Your task to perform on an android device: toggle location history Image 0: 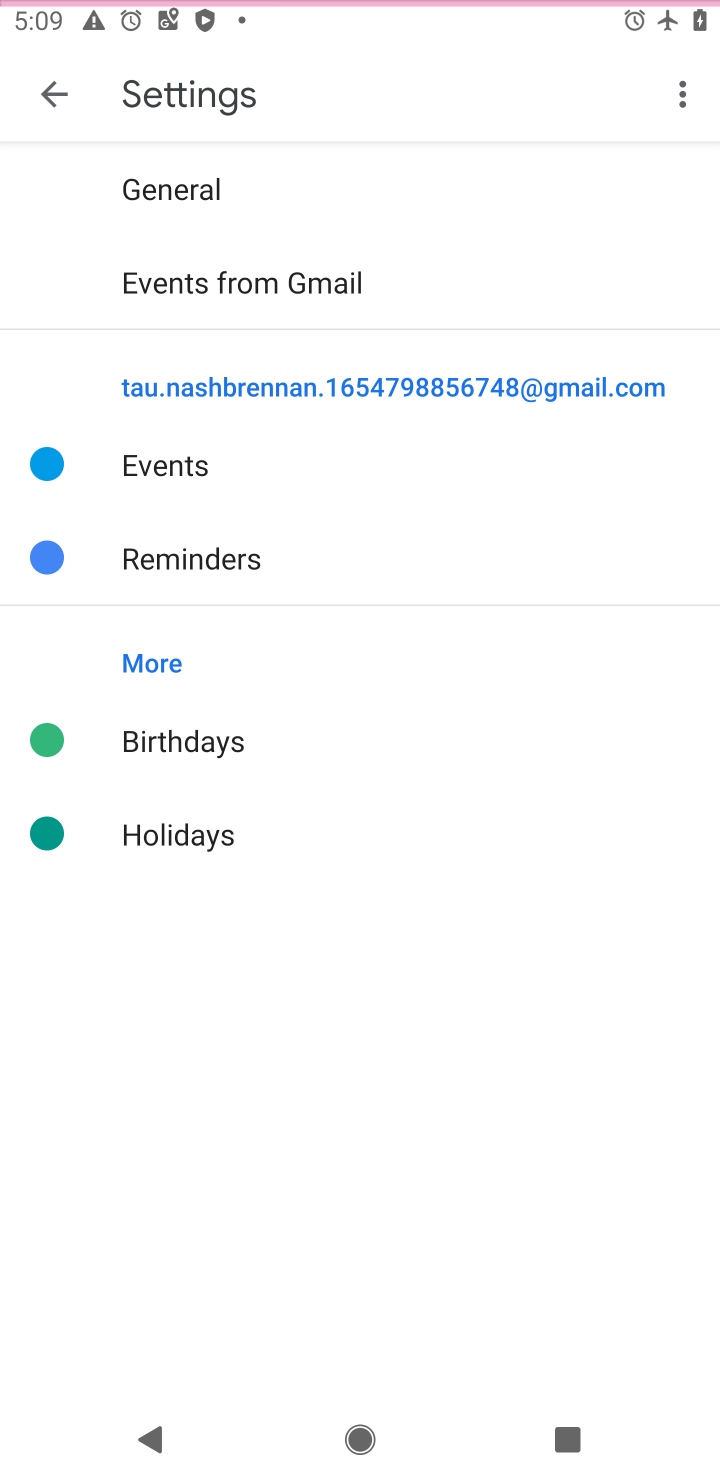
Step 0: press home button
Your task to perform on an android device: toggle location history Image 1: 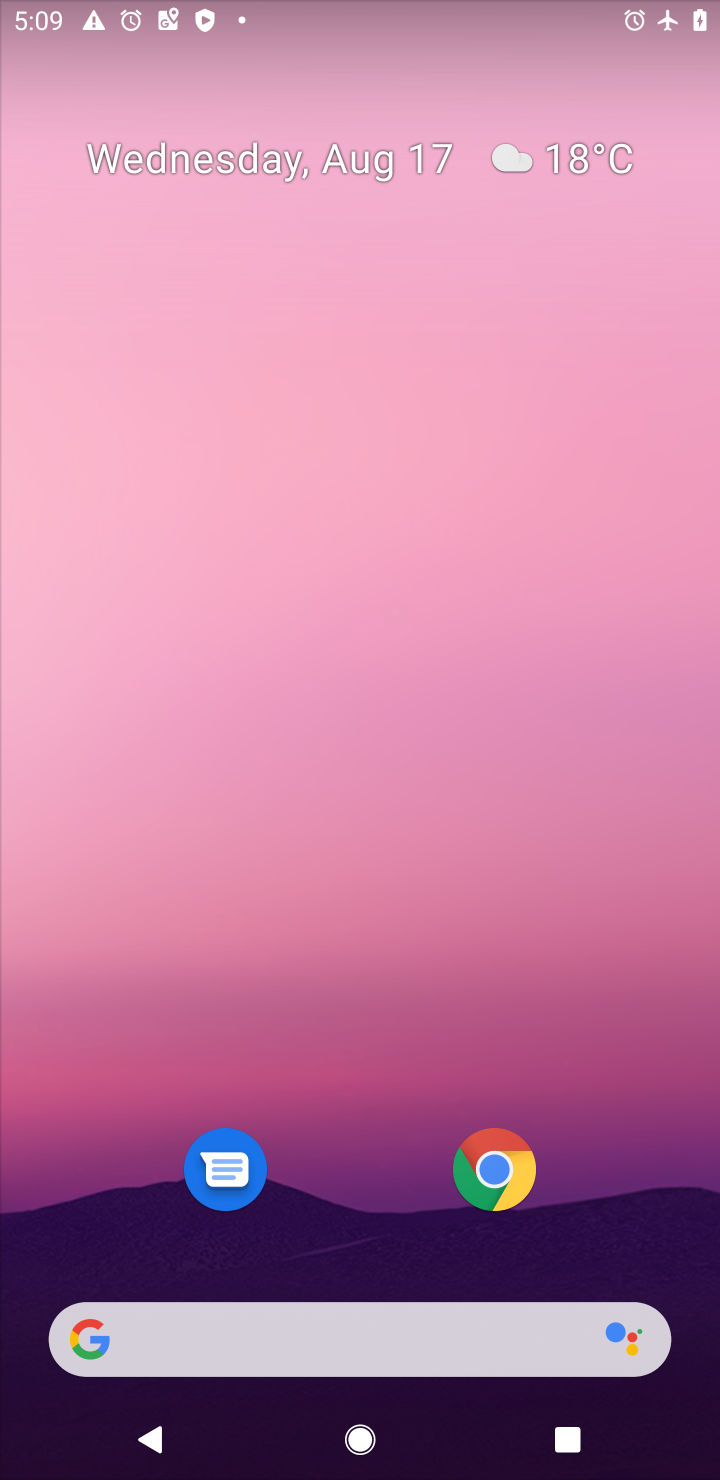
Step 1: drag from (372, 1150) to (306, 89)
Your task to perform on an android device: toggle location history Image 2: 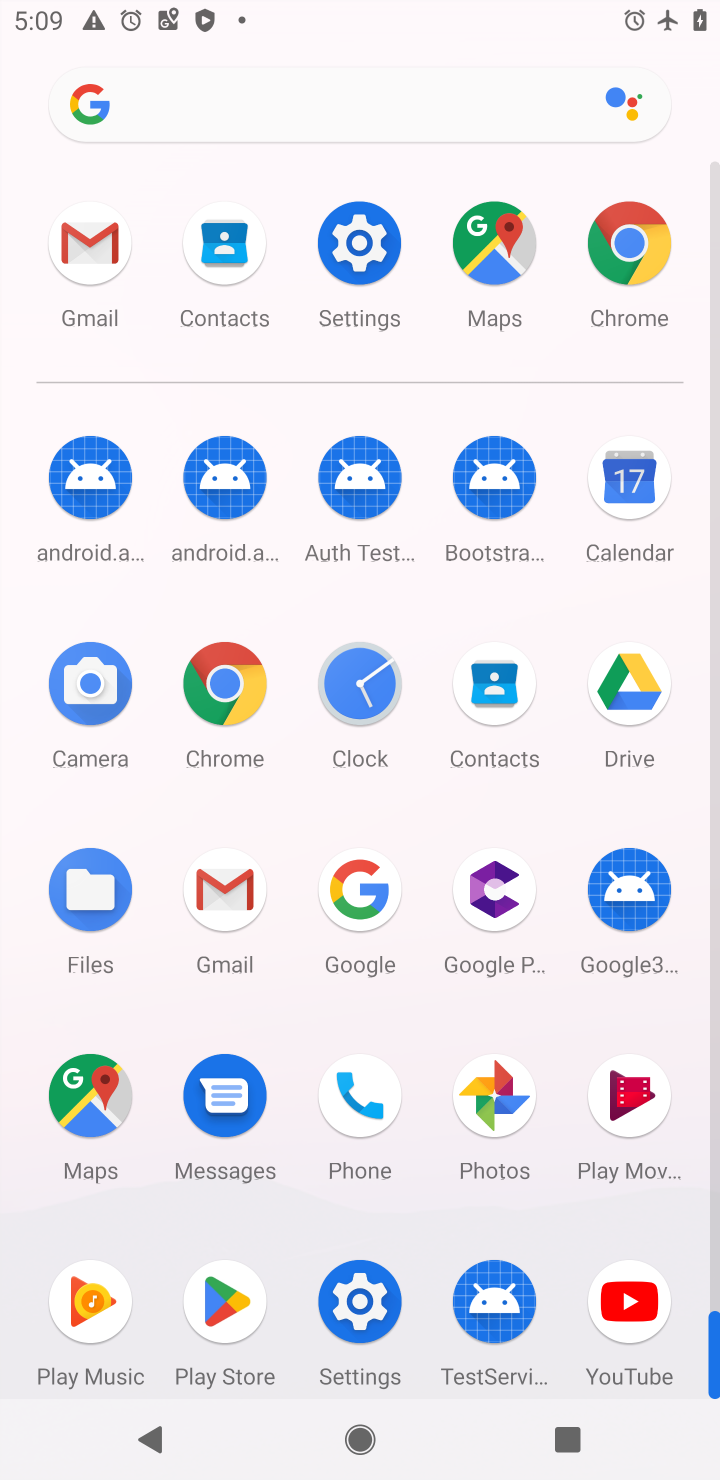
Step 2: click (376, 1312)
Your task to perform on an android device: toggle location history Image 3: 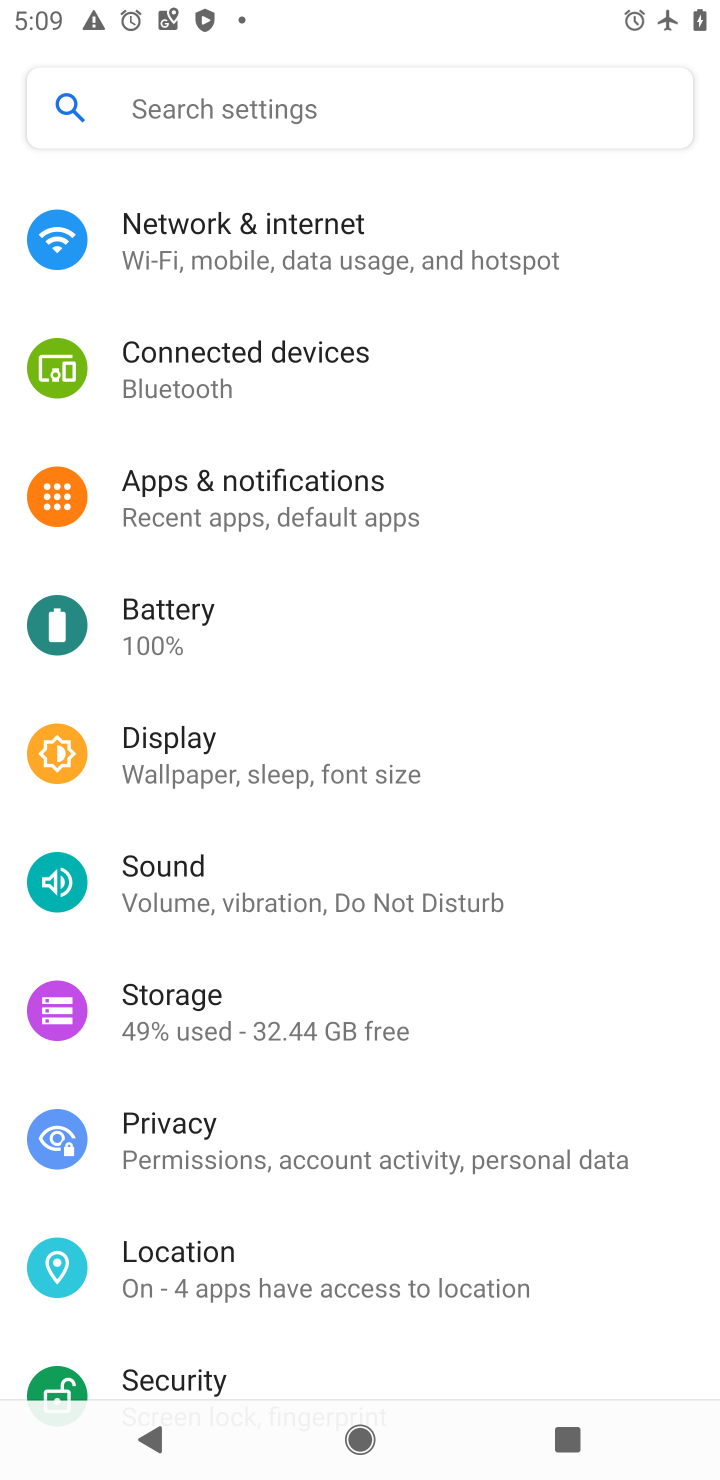
Step 3: click (232, 1263)
Your task to perform on an android device: toggle location history Image 4: 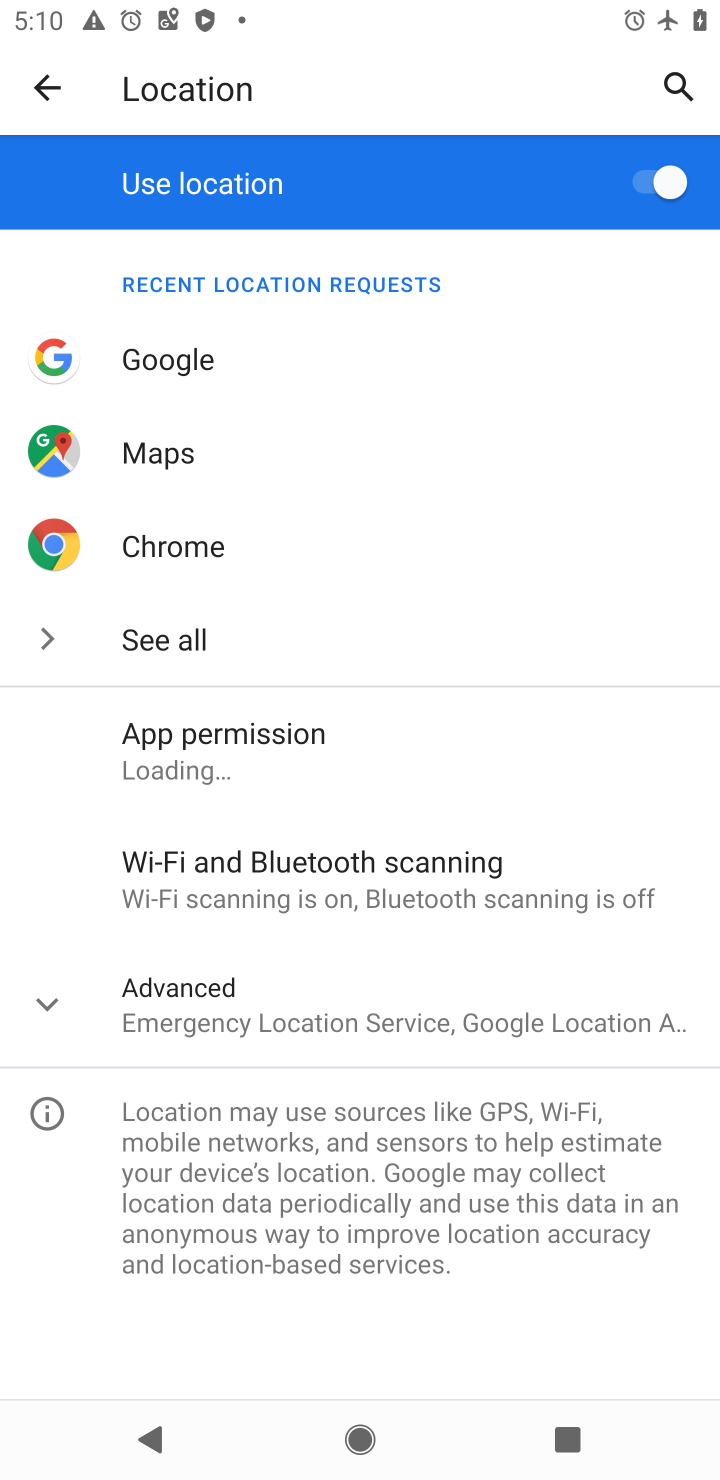
Step 4: press home button
Your task to perform on an android device: toggle location history Image 5: 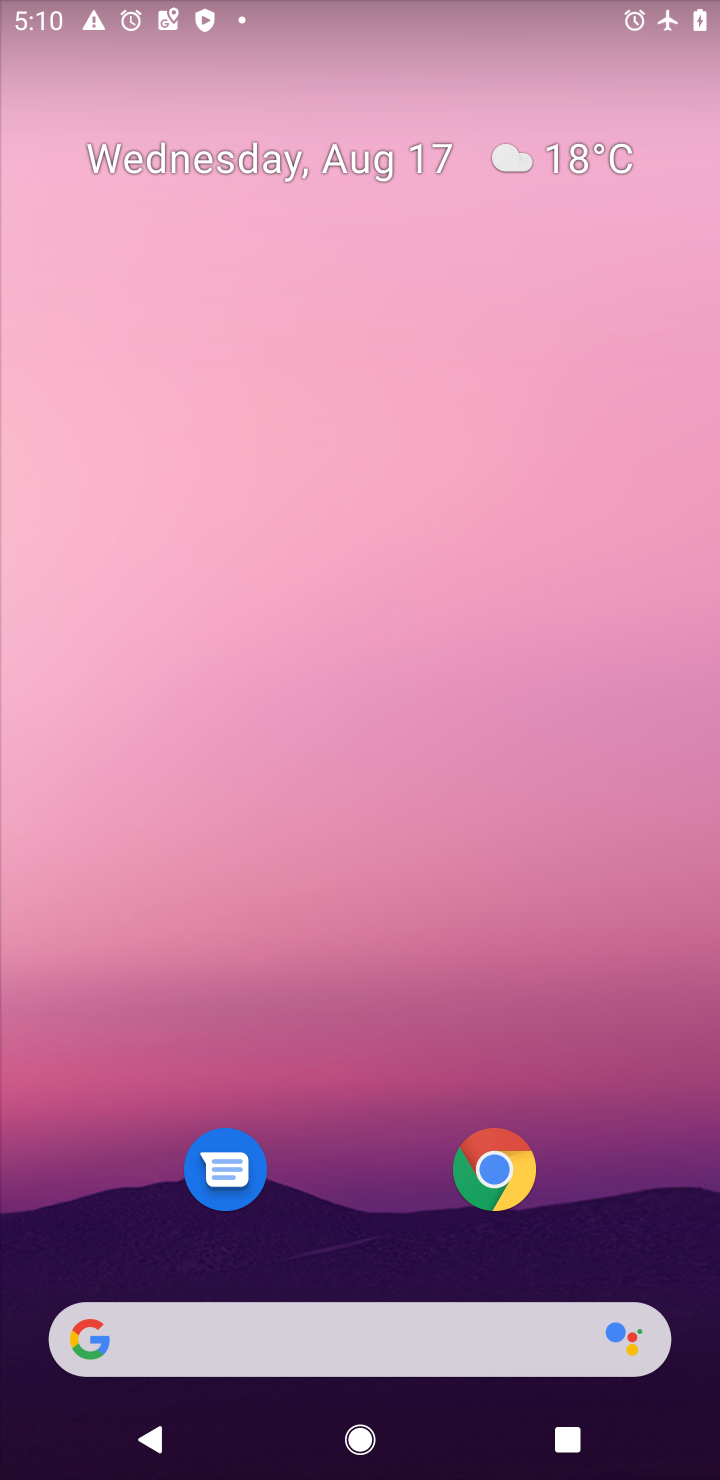
Step 5: drag from (376, 737) to (373, 68)
Your task to perform on an android device: toggle location history Image 6: 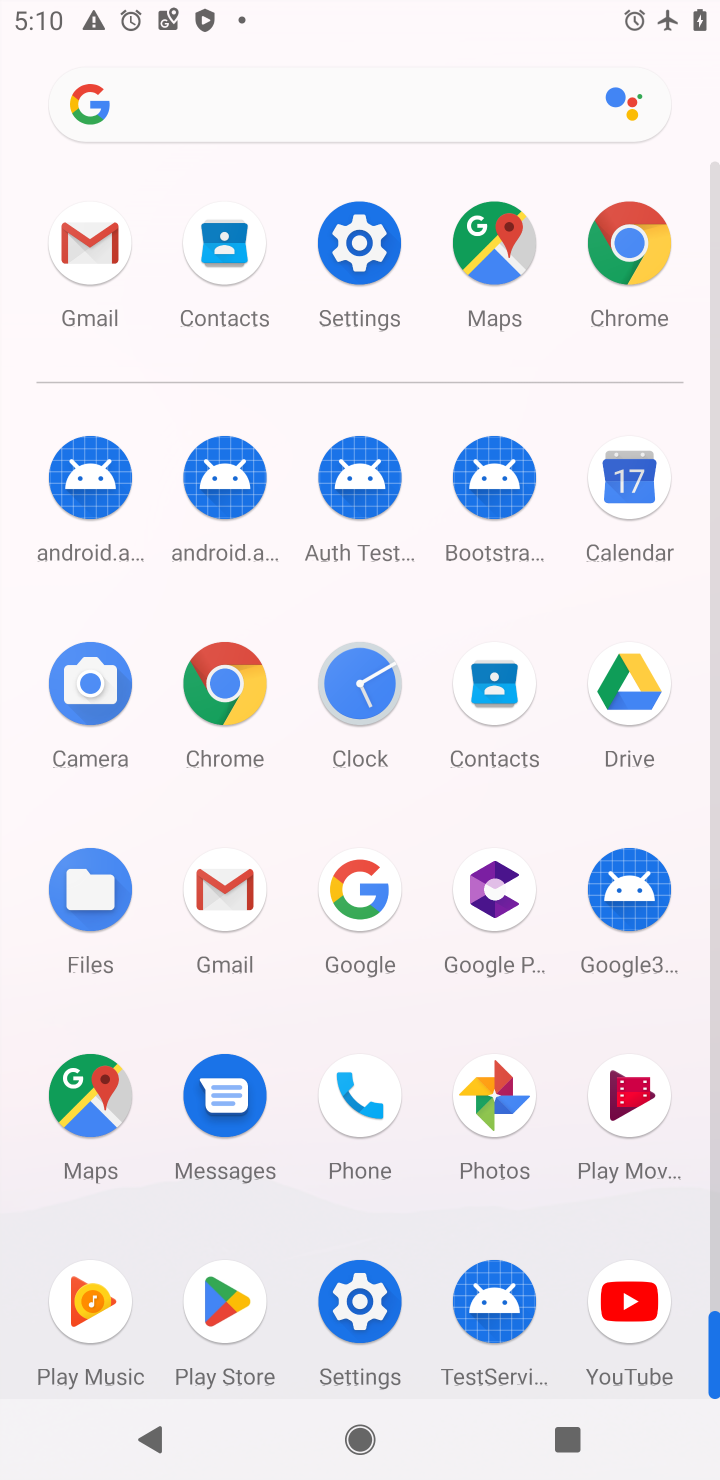
Step 6: click (89, 1086)
Your task to perform on an android device: toggle location history Image 7: 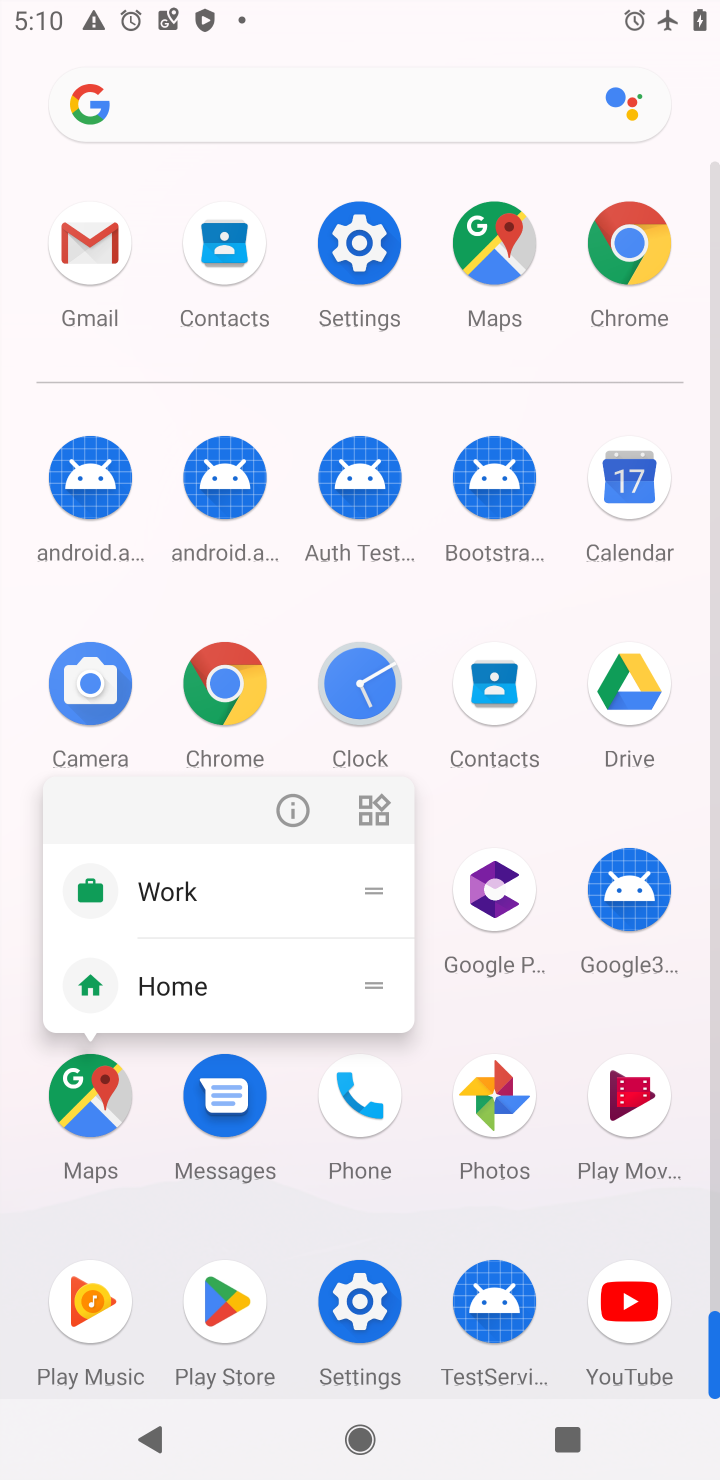
Step 7: click (77, 1090)
Your task to perform on an android device: toggle location history Image 8: 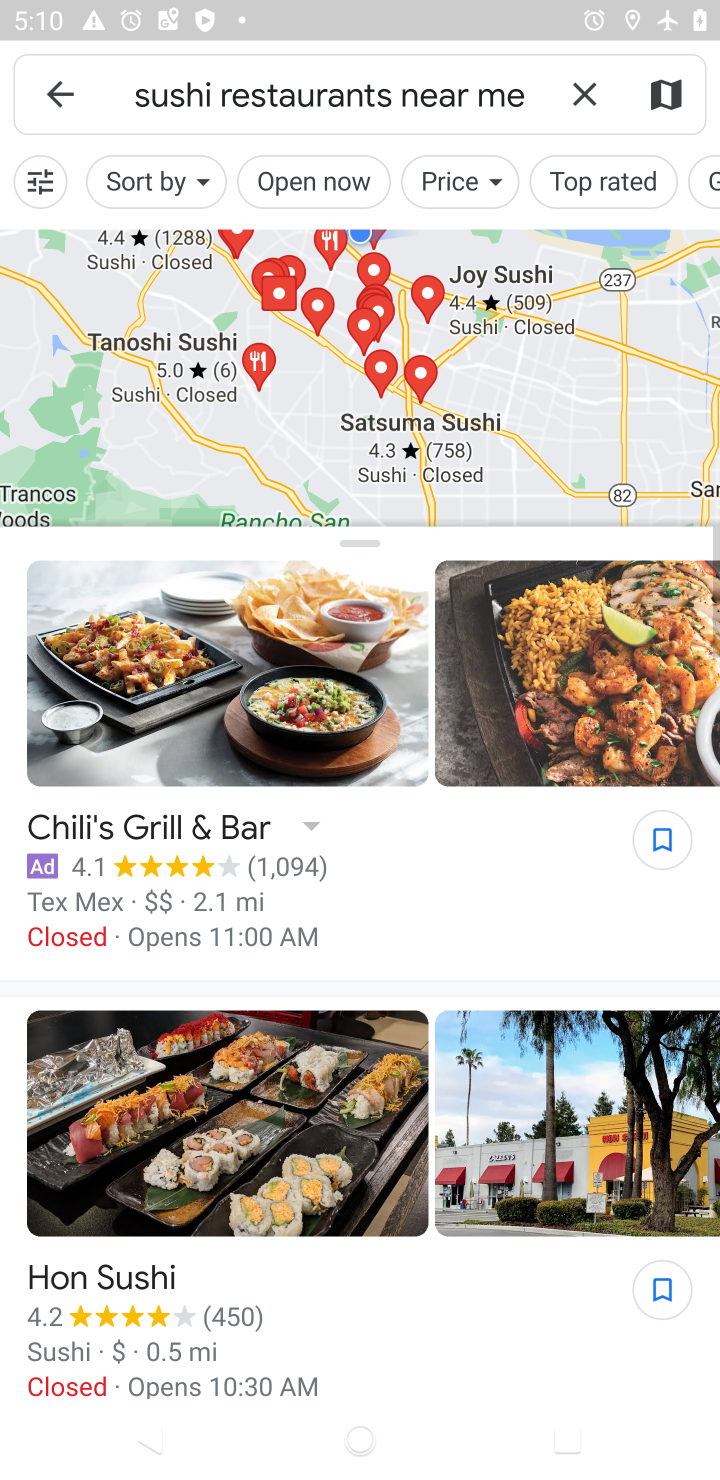
Step 8: click (46, 88)
Your task to perform on an android device: toggle location history Image 9: 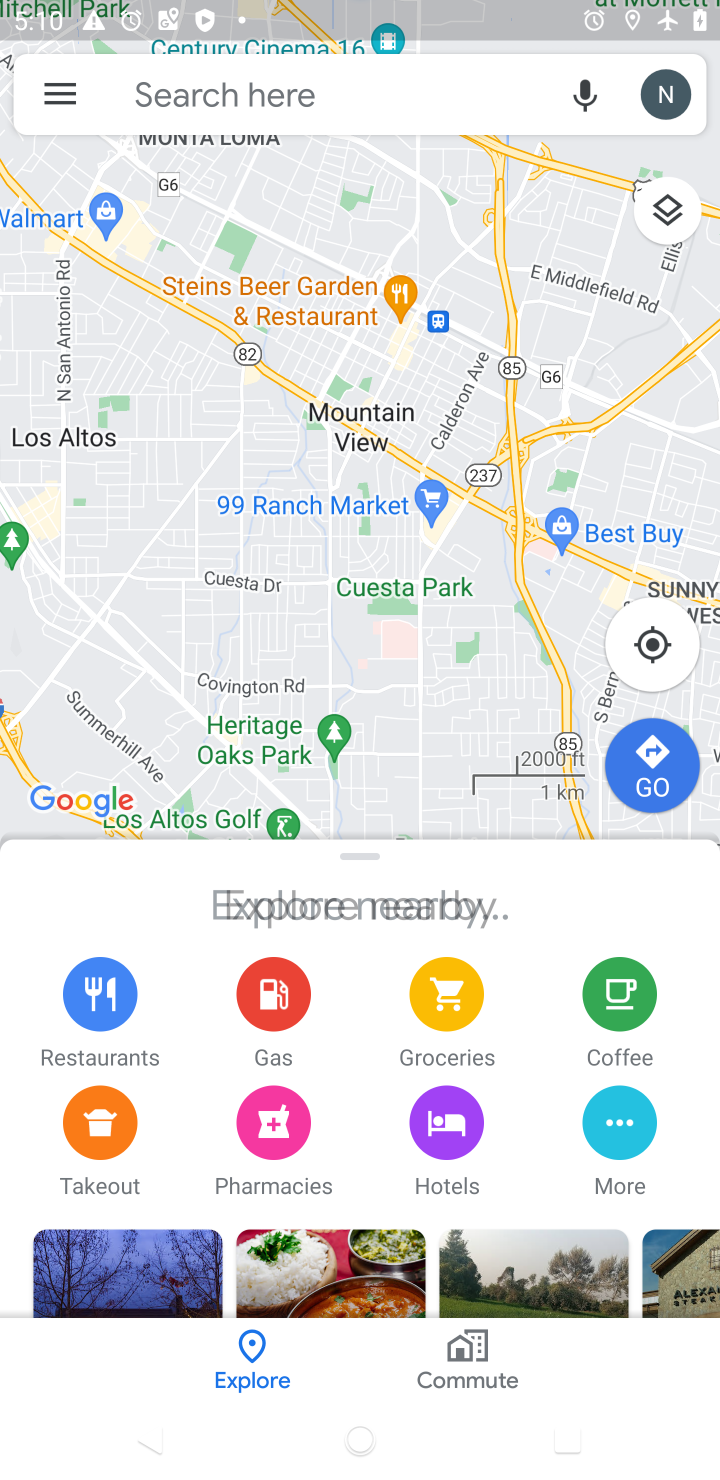
Step 9: click (73, 80)
Your task to perform on an android device: toggle location history Image 10: 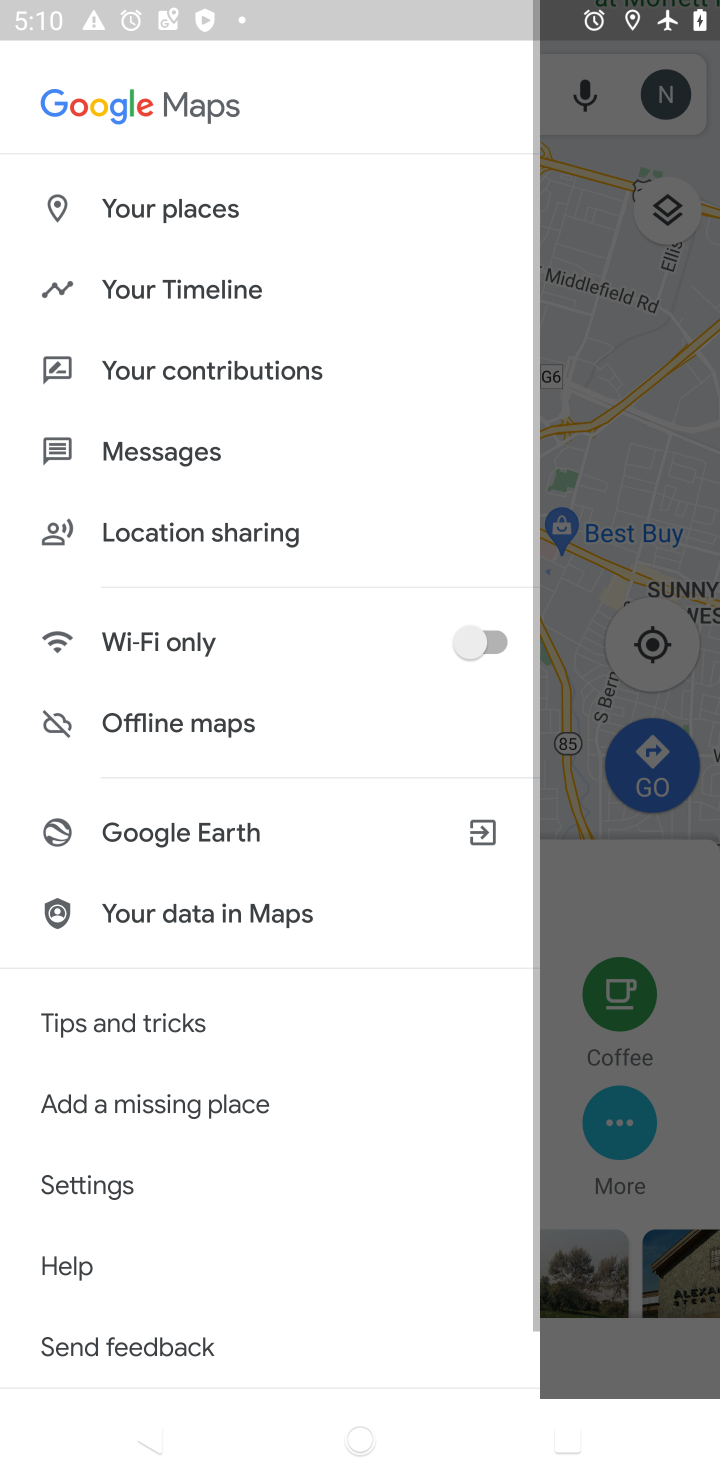
Step 10: click (224, 282)
Your task to perform on an android device: toggle location history Image 11: 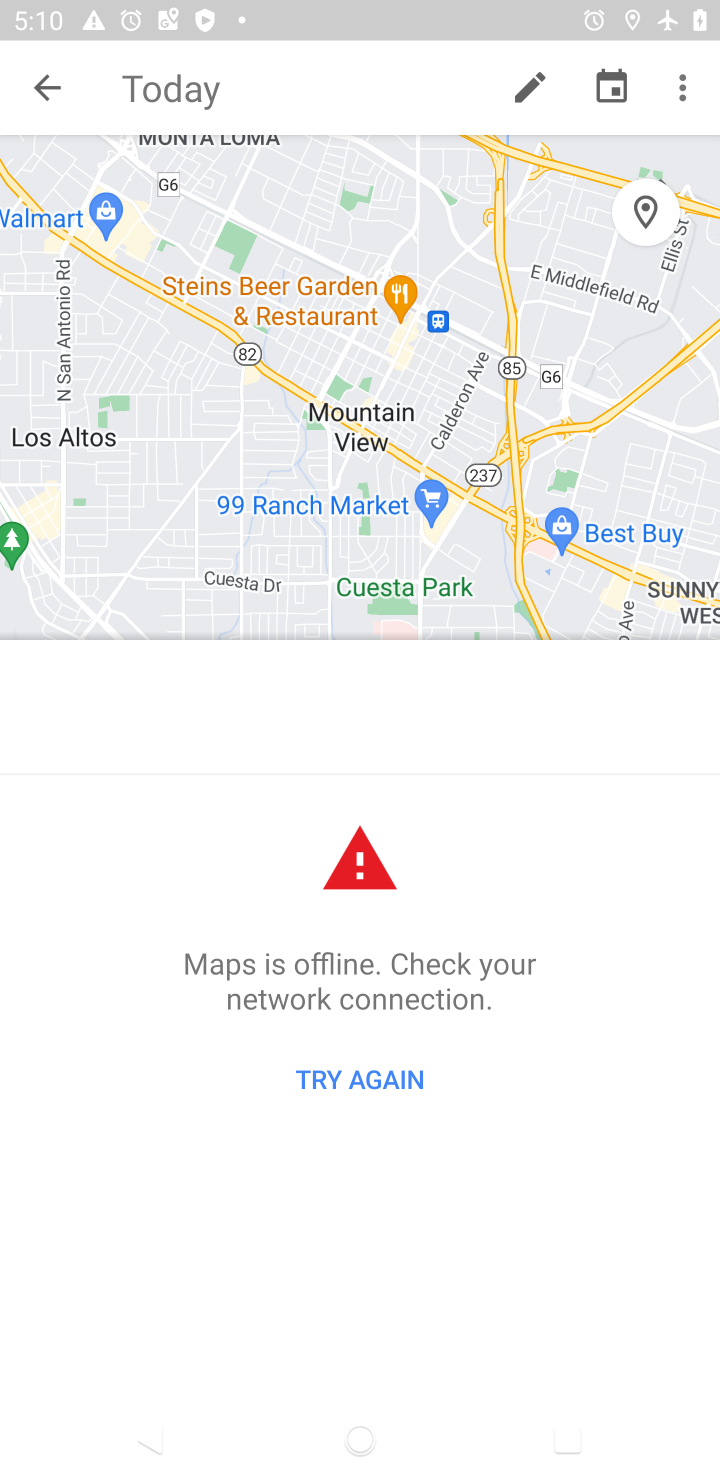
Step 11: drag from (483, 23) to (367, 1114)
Your task to perform on an android device: toggle location history Image 12: 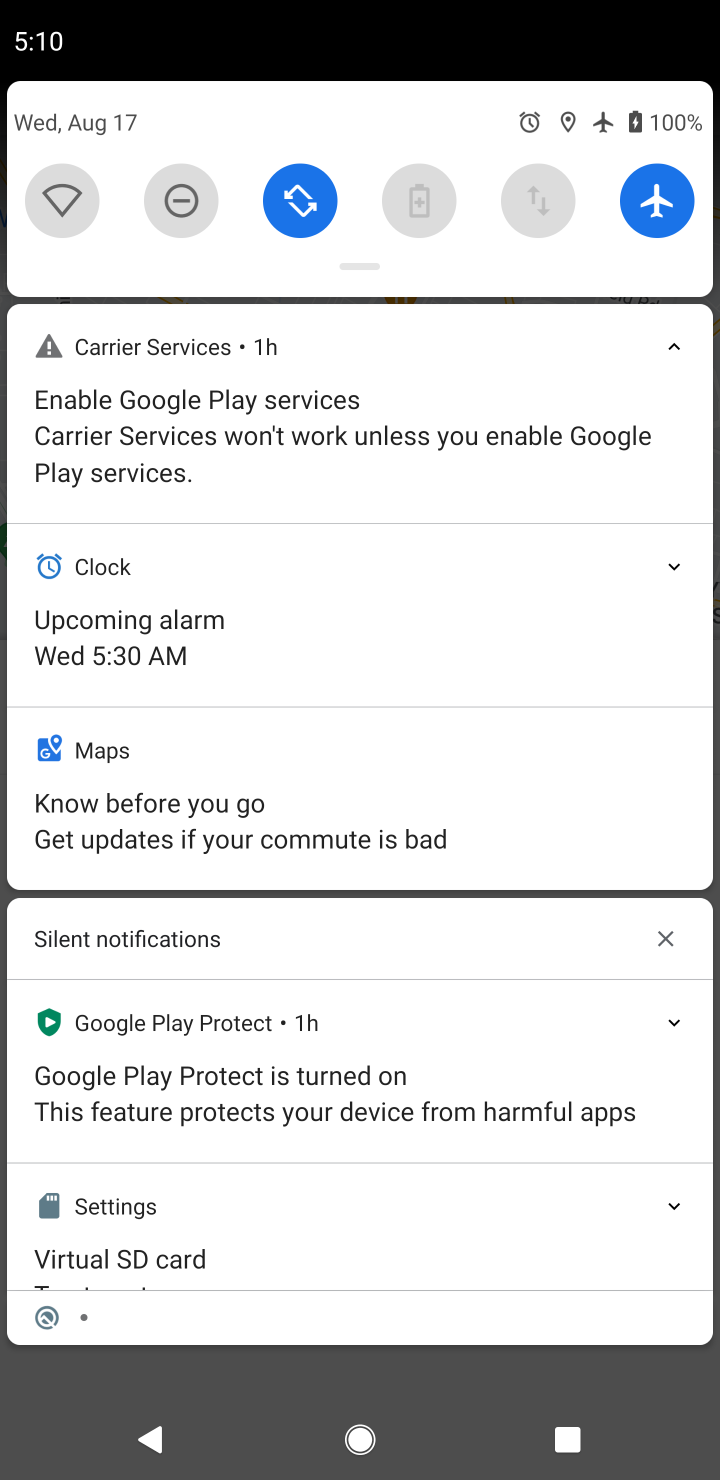
Step 12: click (666, 184)
Your task to perform on an android device: toggle location history Image 13: 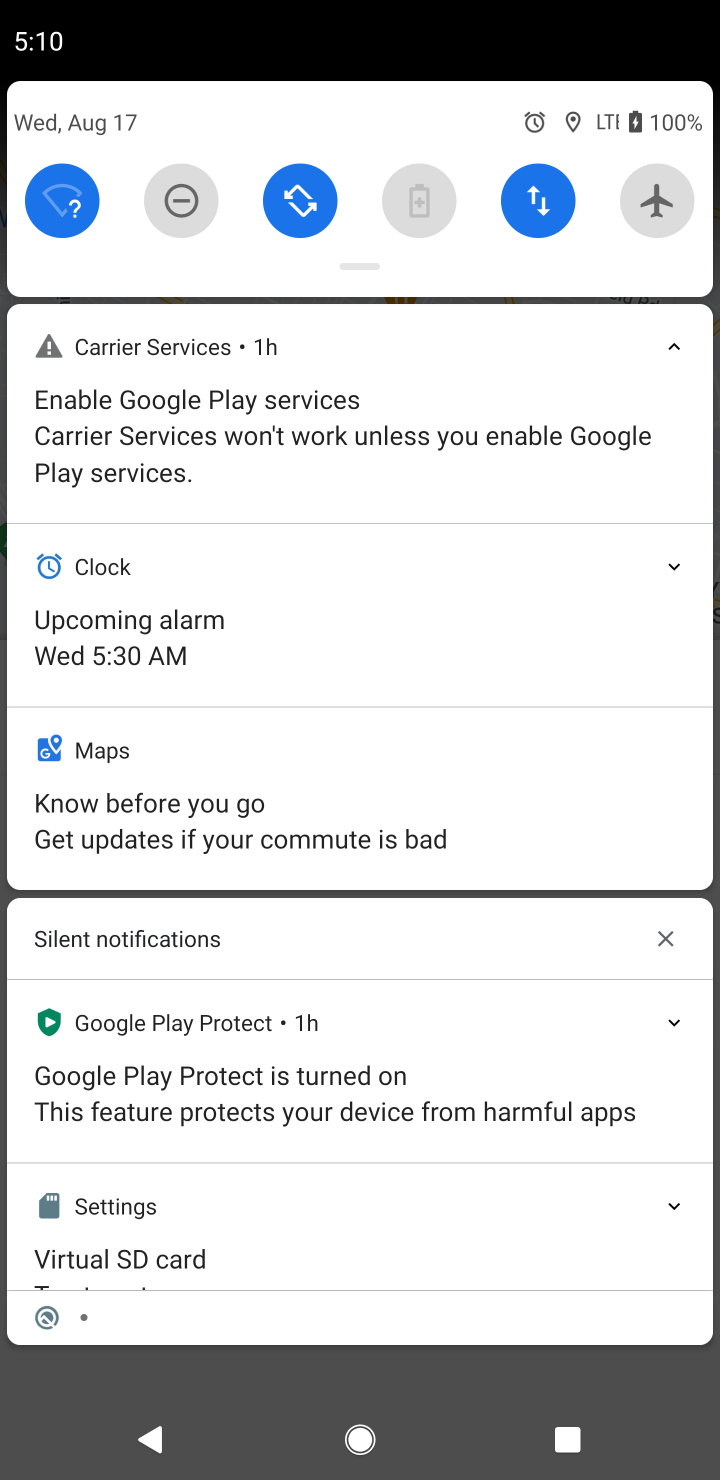
Step 13: click (667, 1376)
Your task to perform on an android device: toggle location history Image 14: 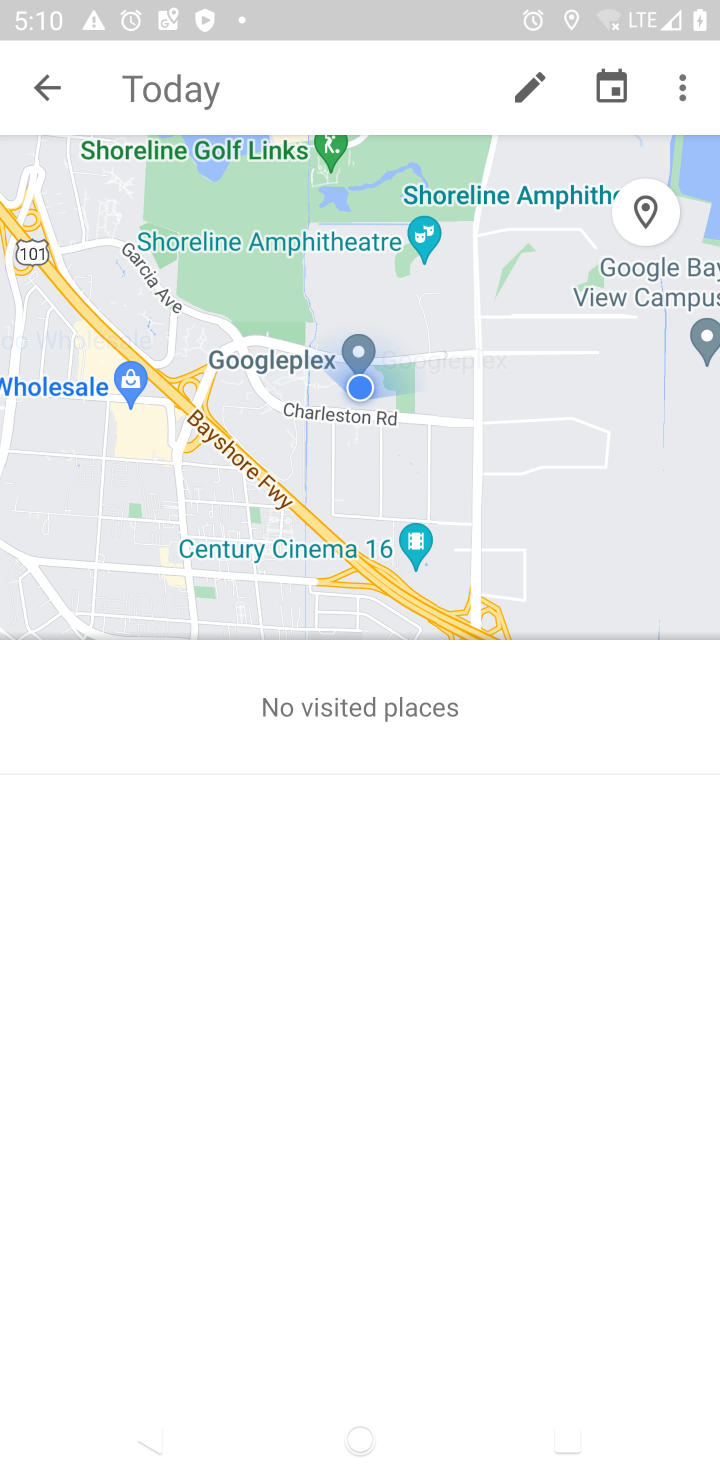
Step 14: click (682, 72)
Your task to perform on an android device: toggle location history Image 15: 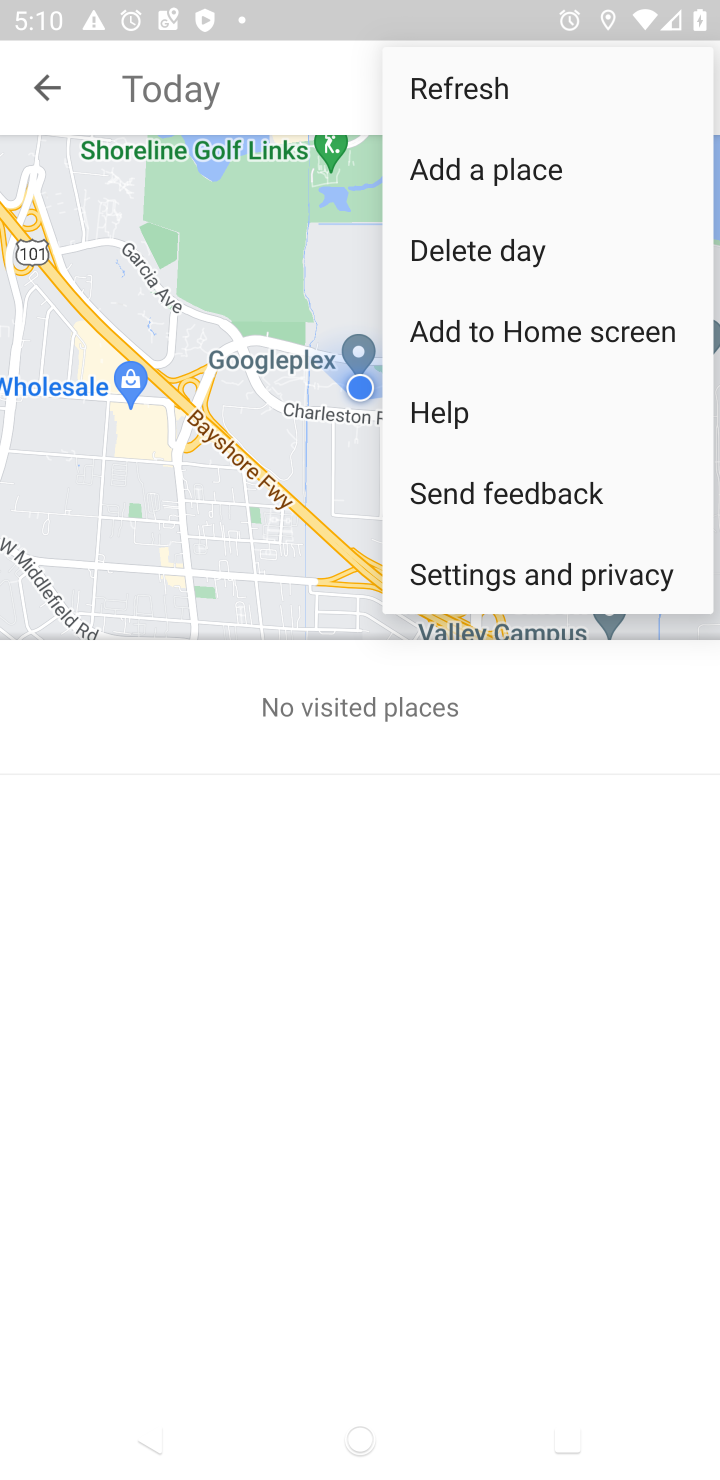
Step 15: click (516, 588)
Your task to perform on an android device: toggle location history Image 16: 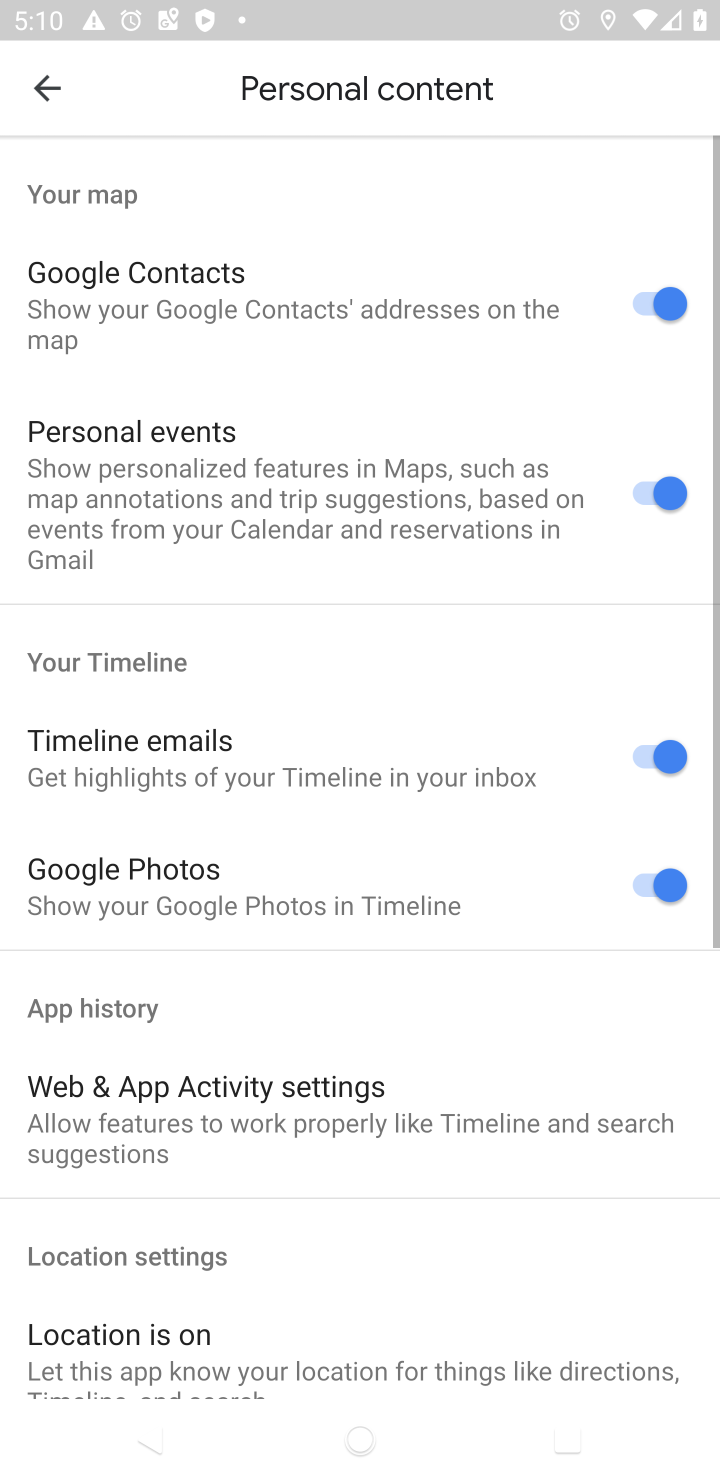
Step 16: drag from (467, 1082) to (490, 326)
Your task to perform on an android device: toggle location history Image 17: 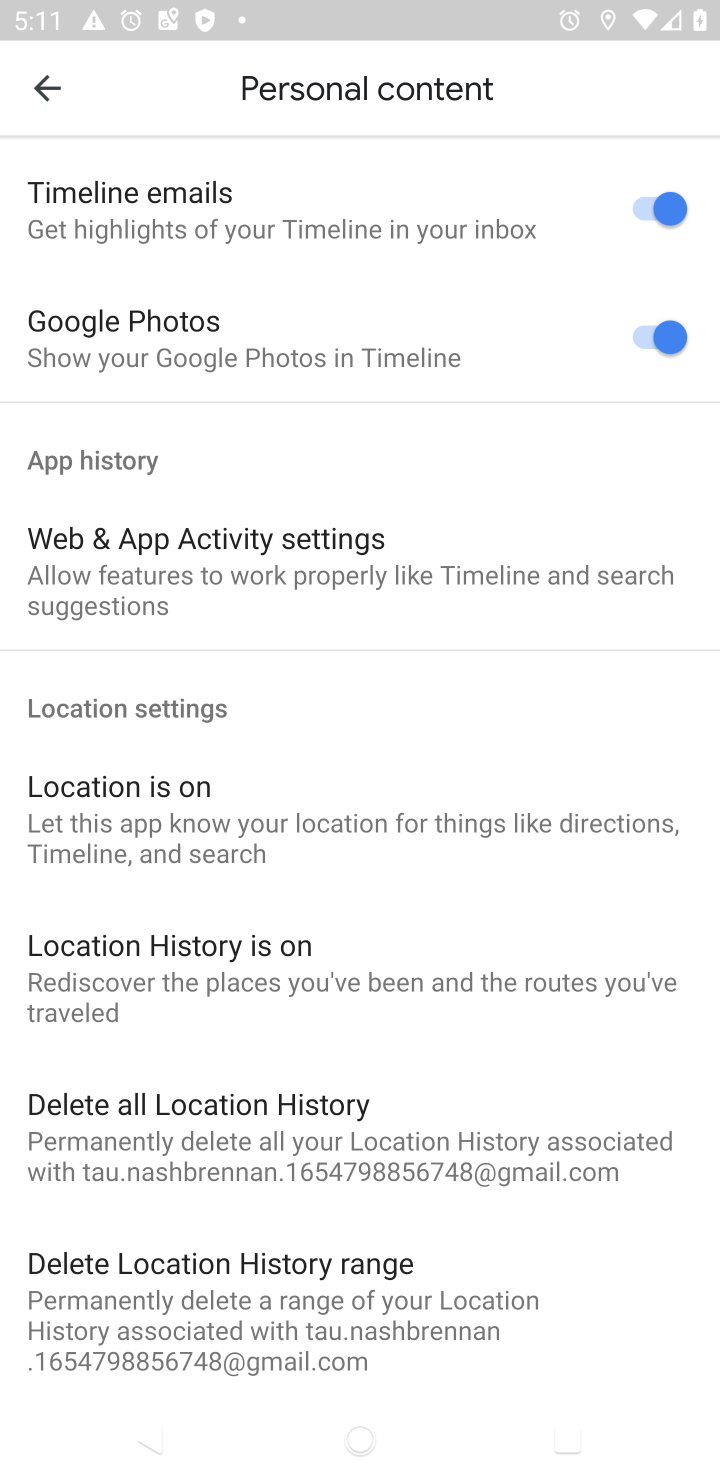
Step 17: click (120, 956)
Your task to perform on an android device: toggle location history Image 18: 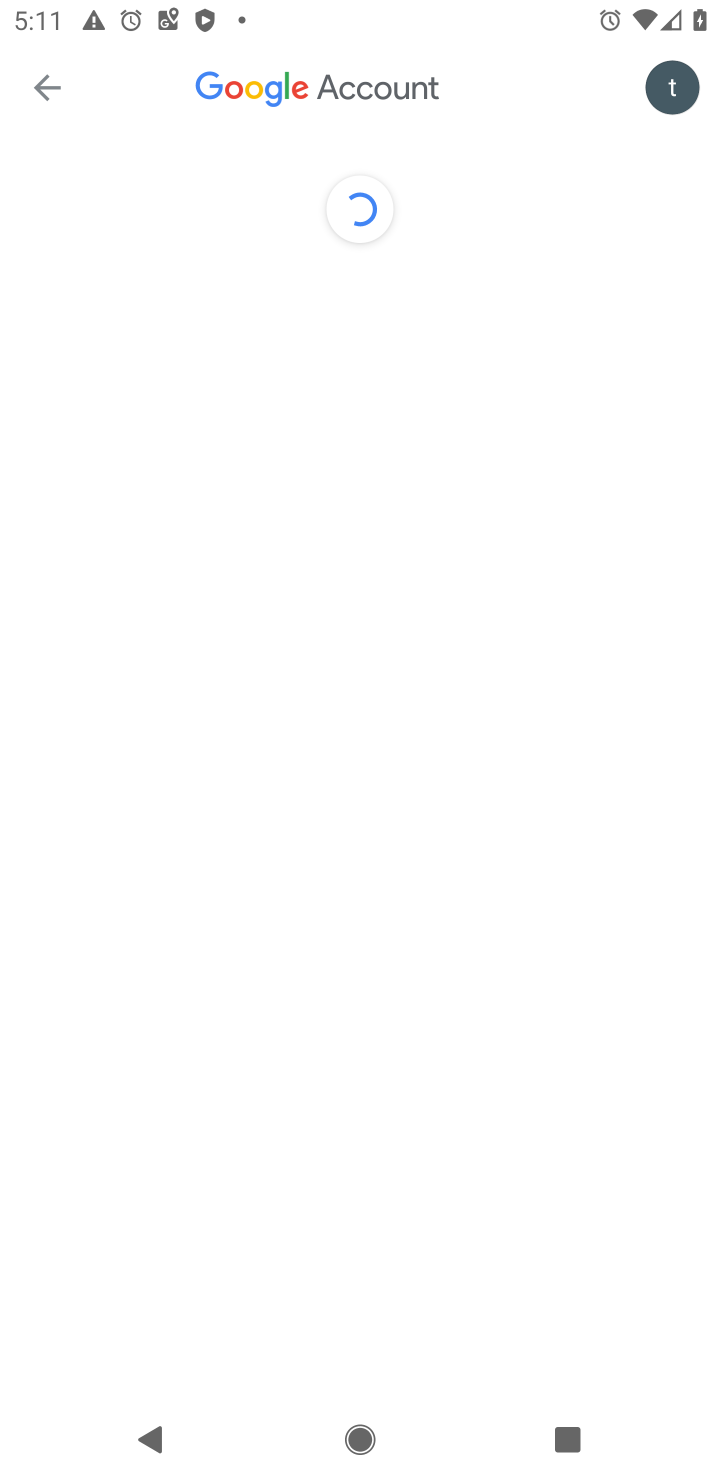
Step 18: click (570, 1248)
Your task to perform on an android device: toggle location history Image 19: 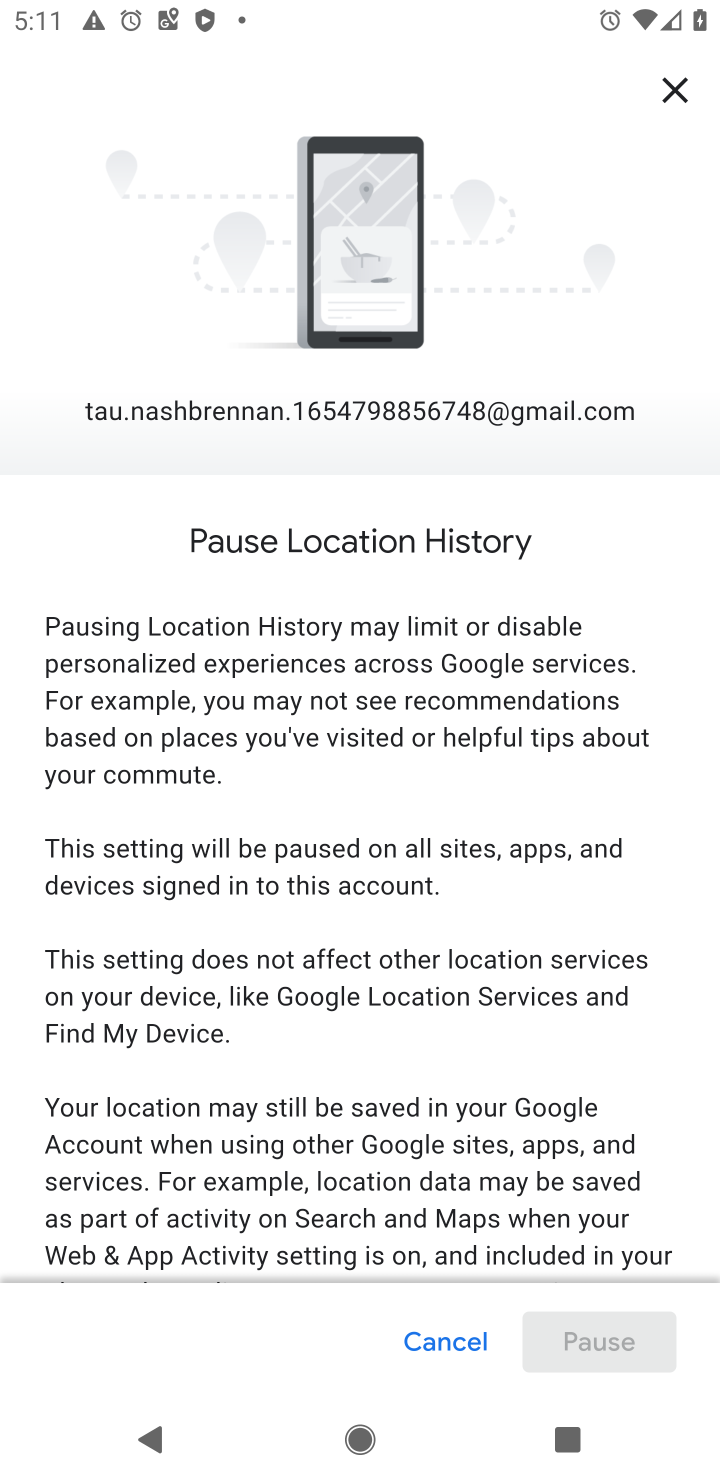
Step 19: drag from (433, 1177) to (432, 21)
Your task to perform on an android device: toggle location history Image 20: 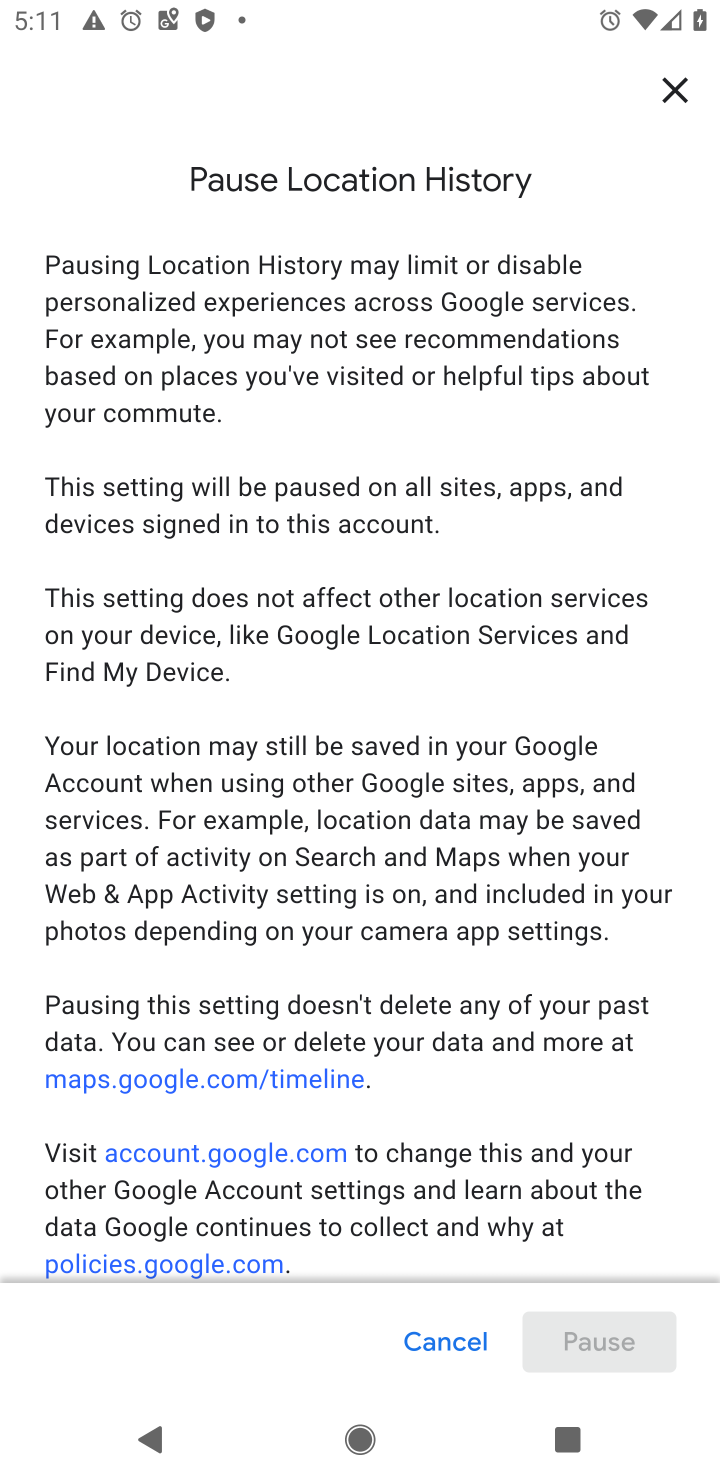
Step 20: drag from (462, 987) to (464, 249)
Your task to perform on an android device: toggle location history Image 21: 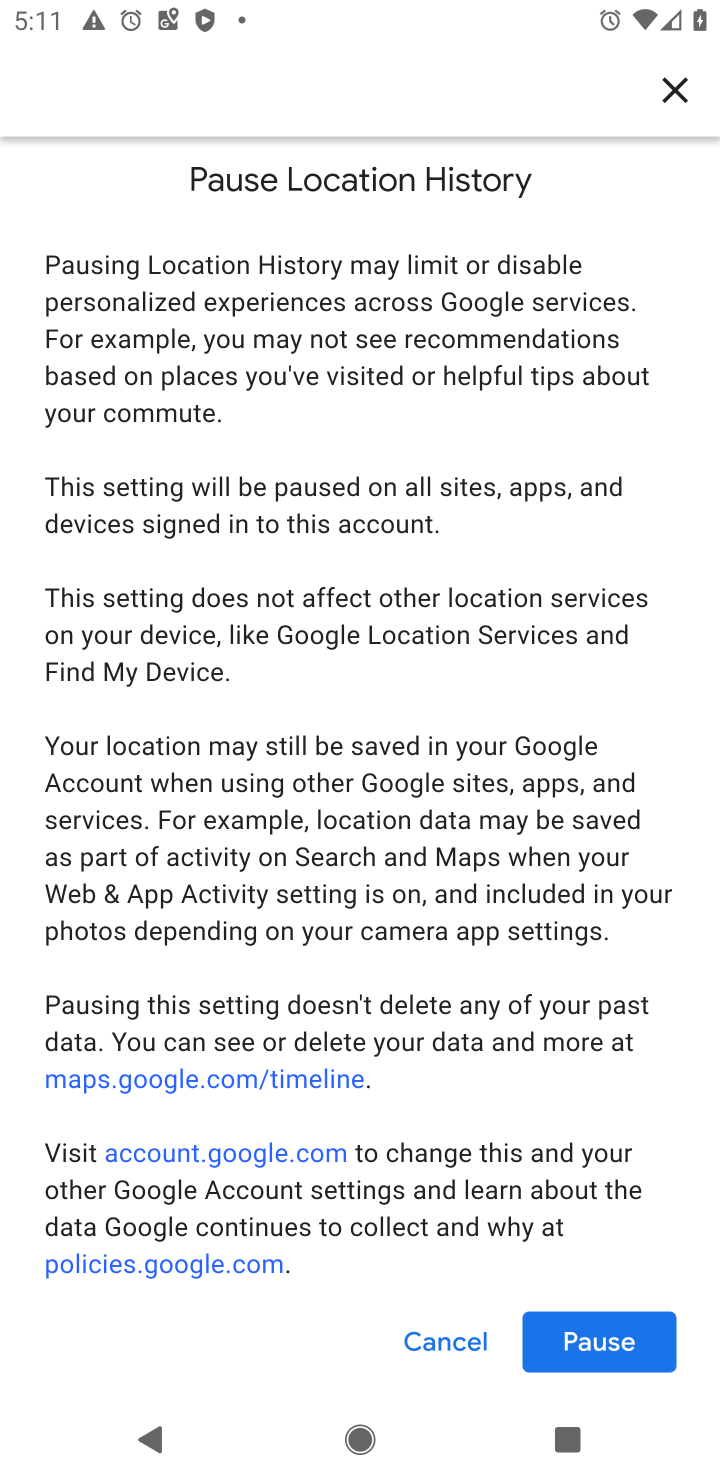
Step 21: click (597, 1331)
Your task to perform on an android device: toggle location history Image 22: 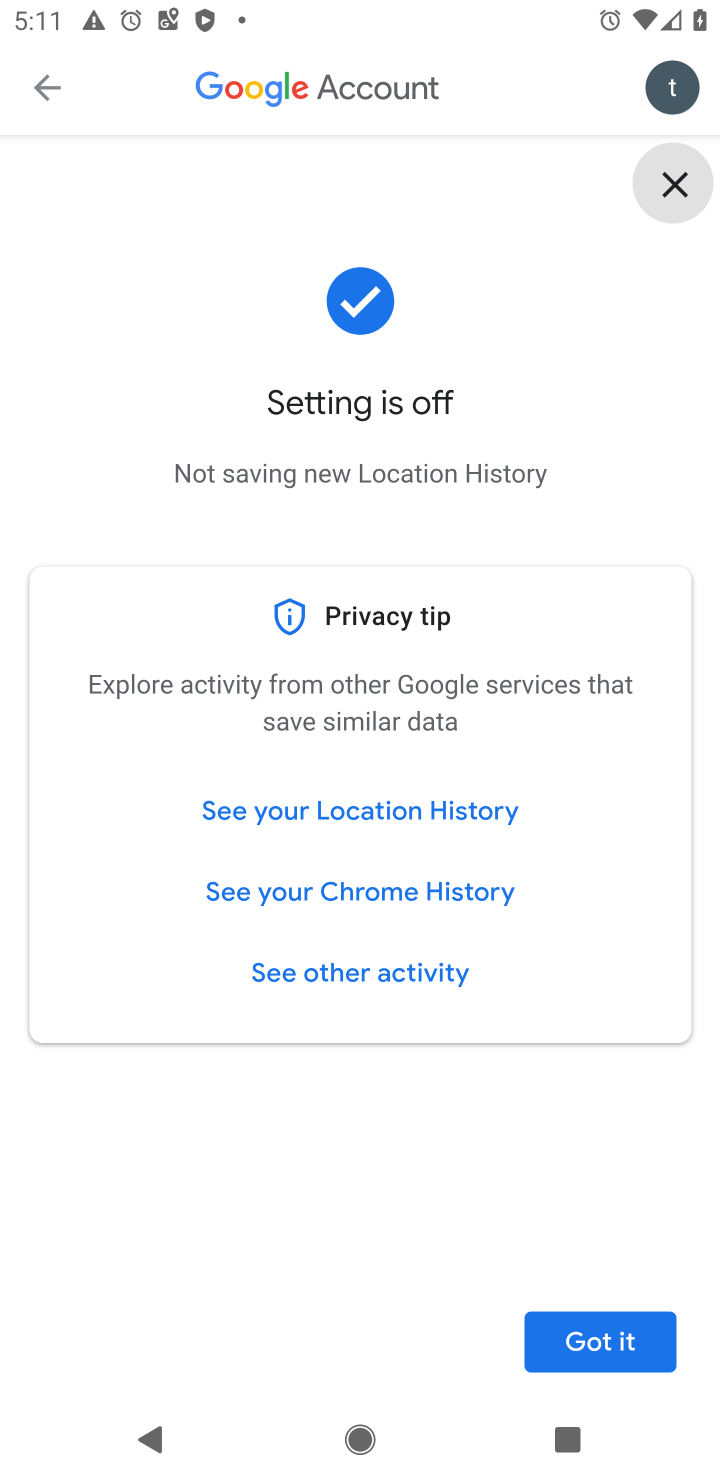
Step 22: click (610, 1336)
Your task to perform on an android device: toggle location history Image 23: 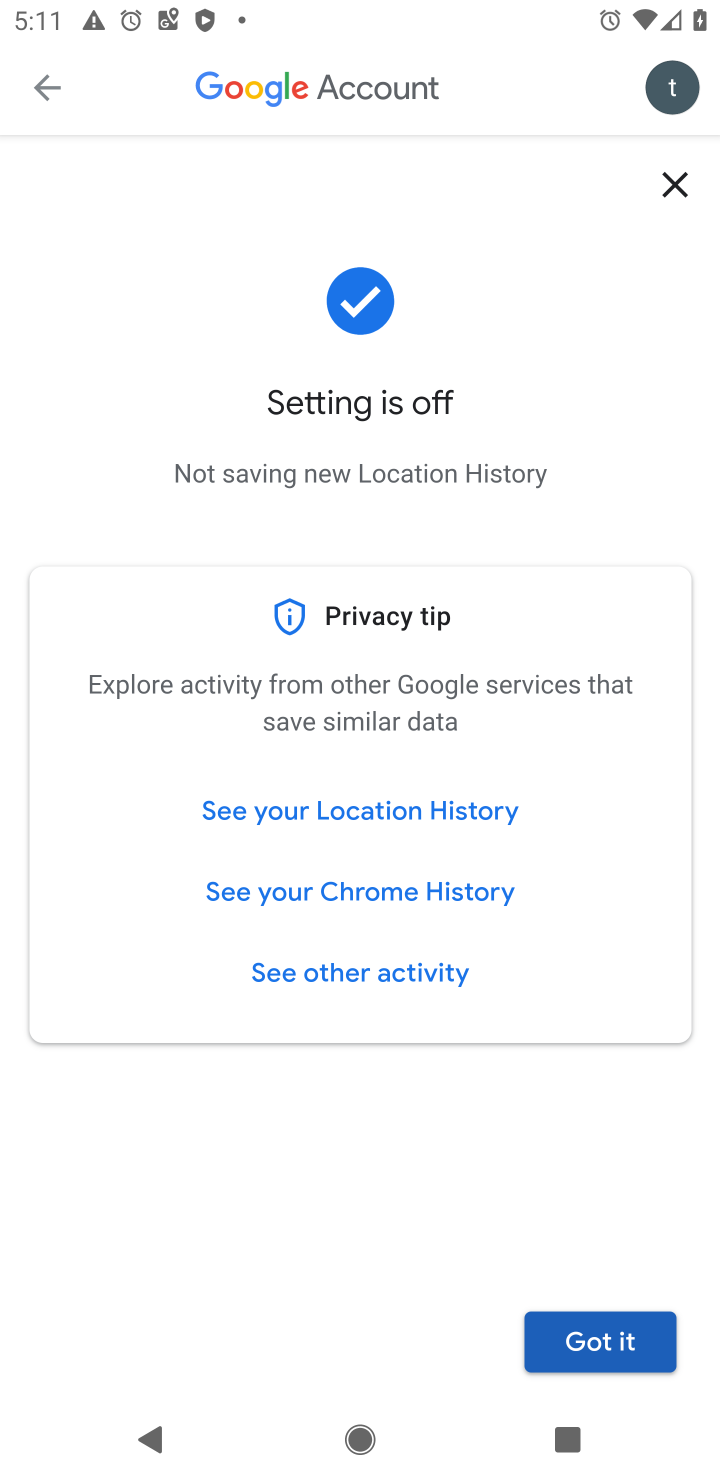
Step 23: click (635, 1335)
Your task to perform on an android device: toggle location history Image 24: 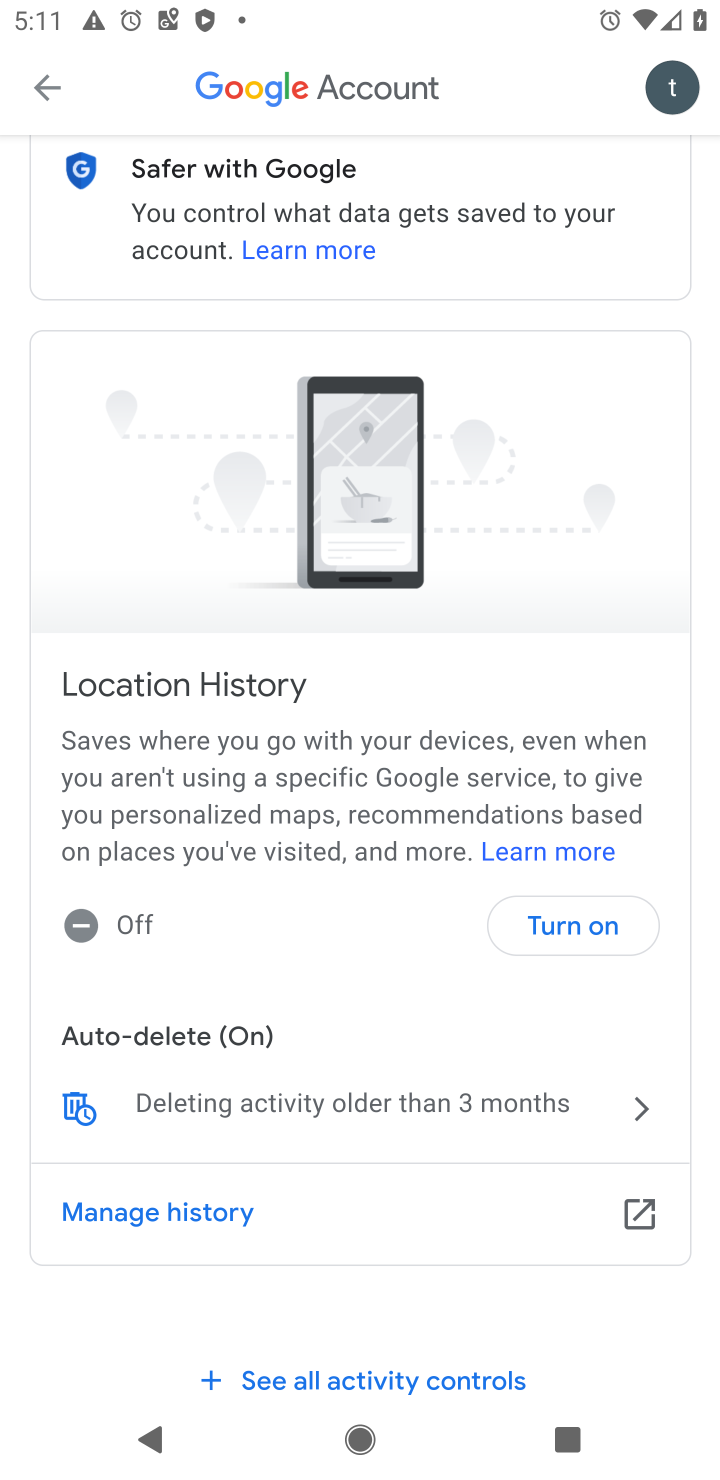
Step 24: task complete